Your task to perform on an android device: How much does a 3 bedroom apartment rent for in Los Angeles? Image 0: 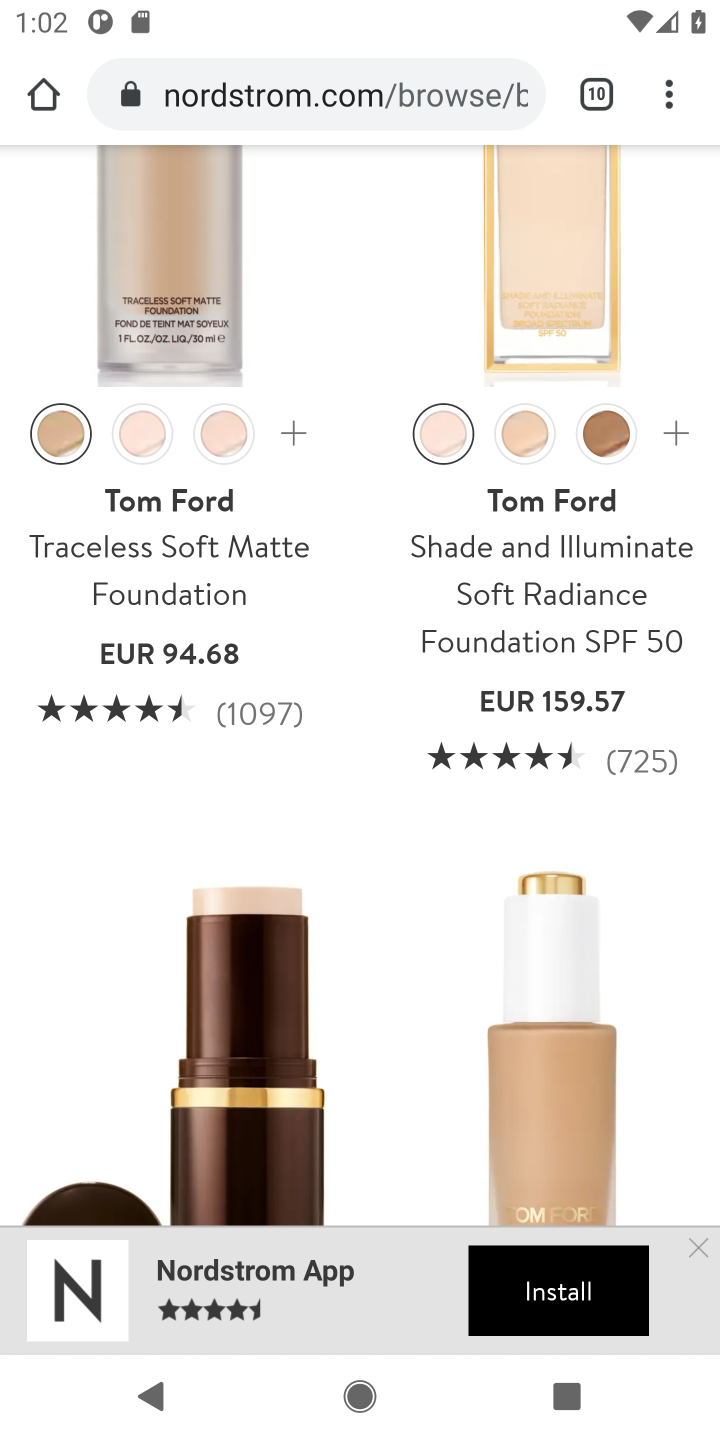
Step 0: press home button
Your task to perform on an android device: How much does a 3 bedroom apartment rent for in Los Angeles? Image 1: 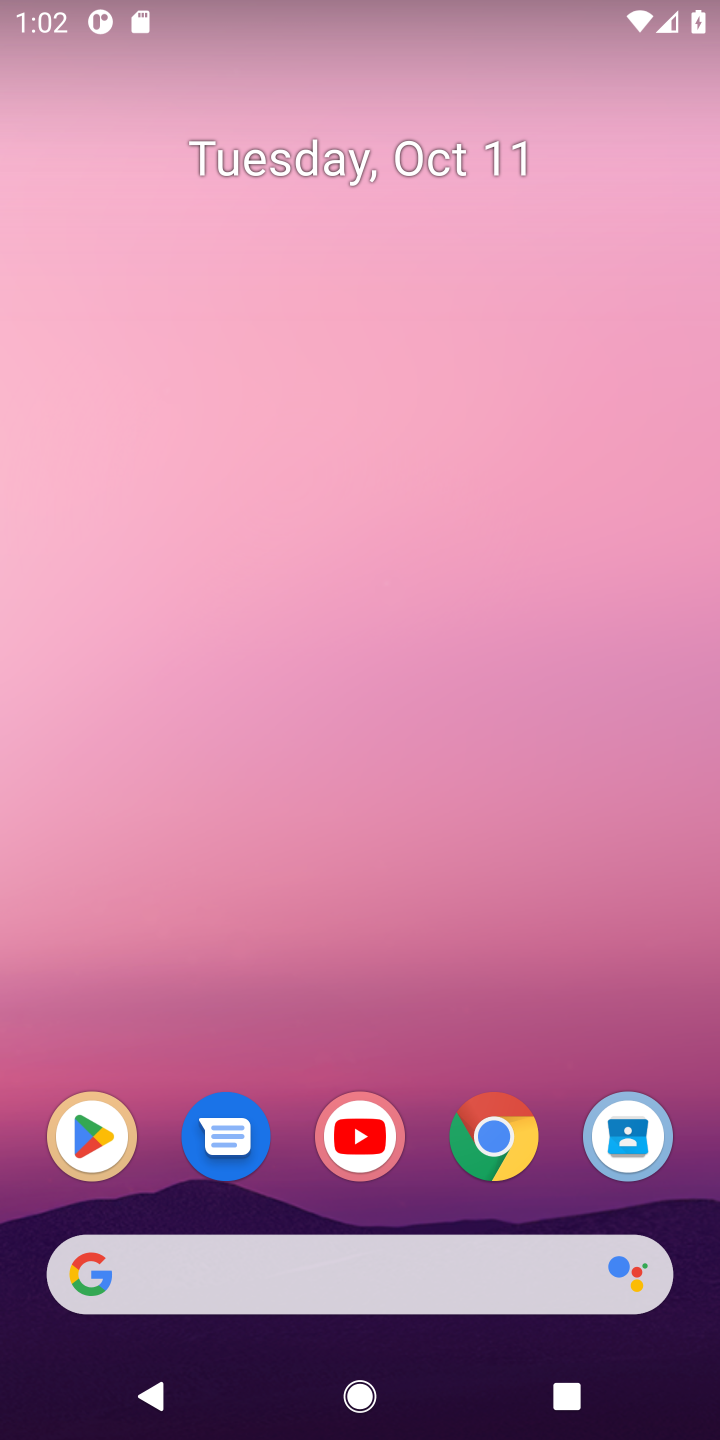
Step 1: click (408, 1288)
Your task to perform on an android device: How much does a 3 bedroom apartment rent for in Los Angeles? Image 2: 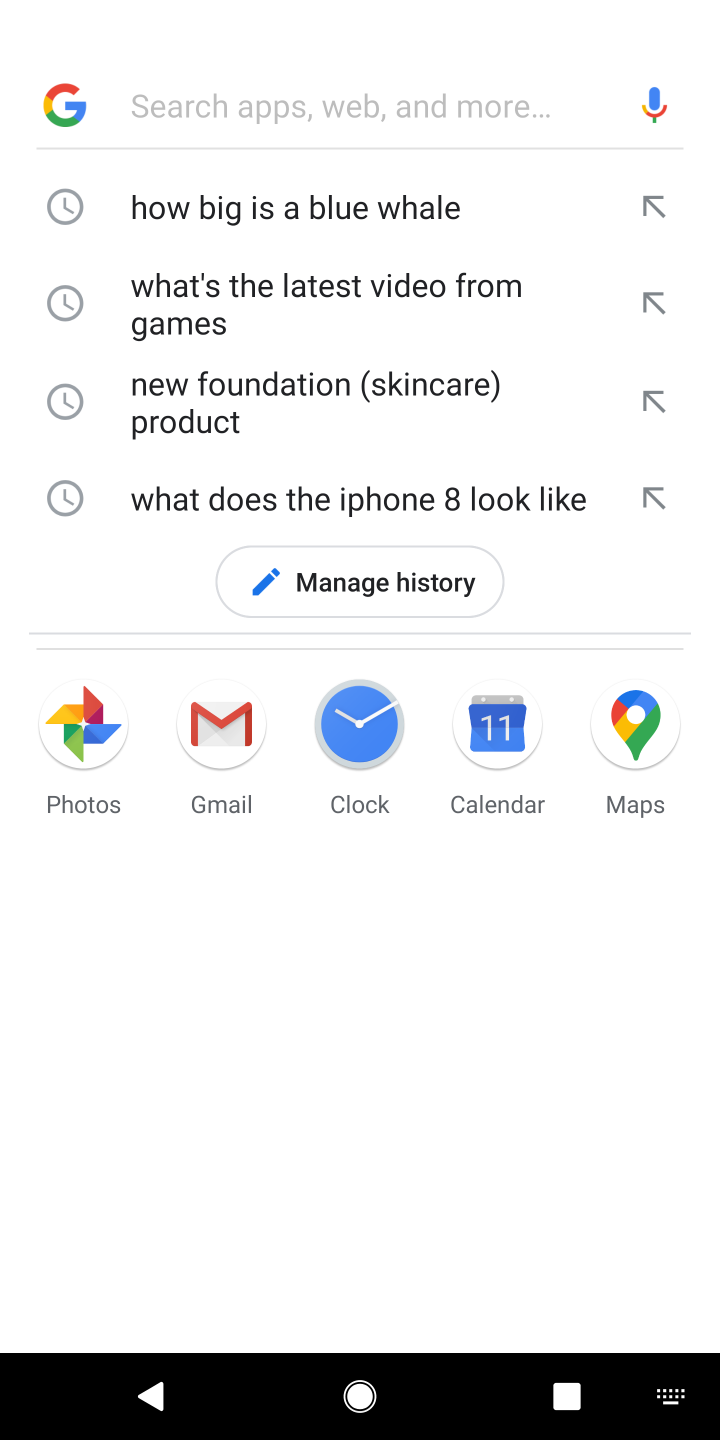
Step 2: type "3 bedroom apartment rent for in Los Angeles"
Your task to perform on an android device: How much does a 3 bedroom apartment rent for in Los Angeles? Image 3: 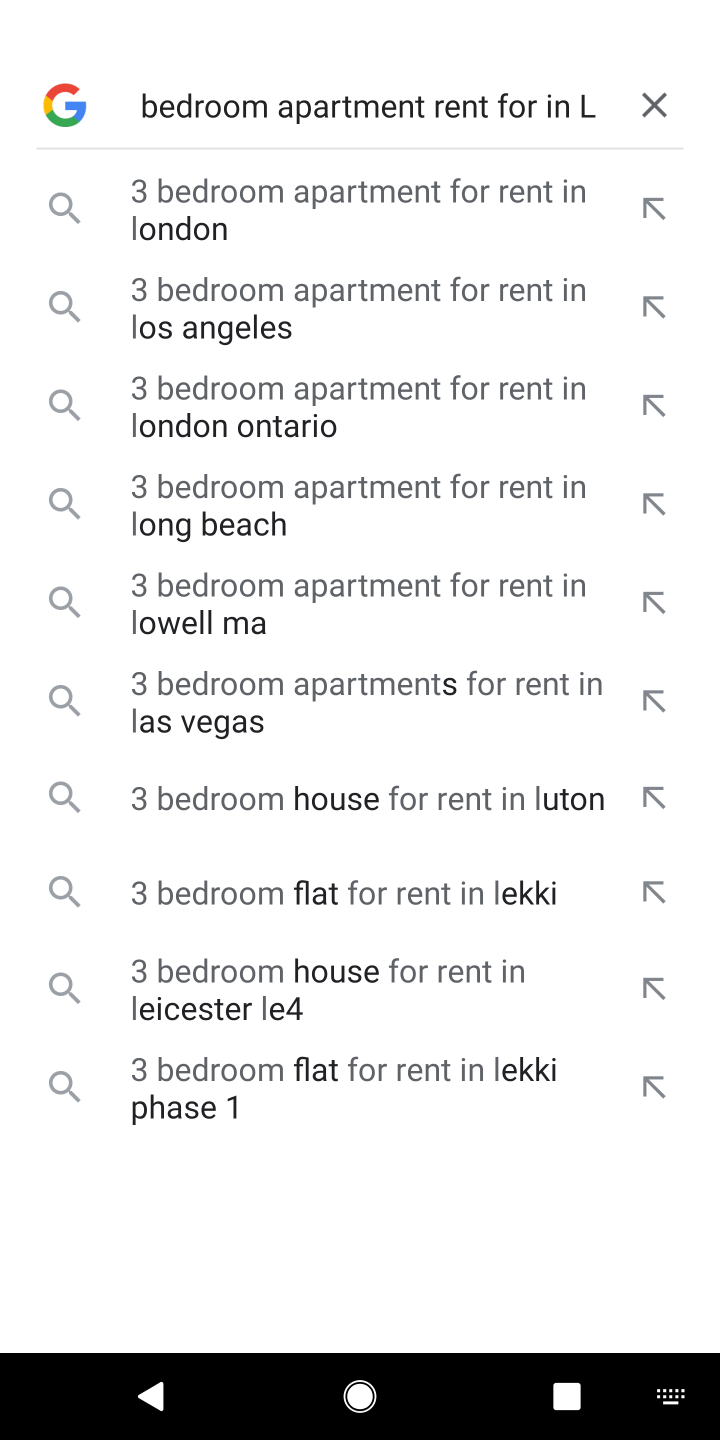
Step 3: press enter
Your task to perform on an android device: How much does a 3 bedroom apartment rent for in Los Angeles? Image 4: 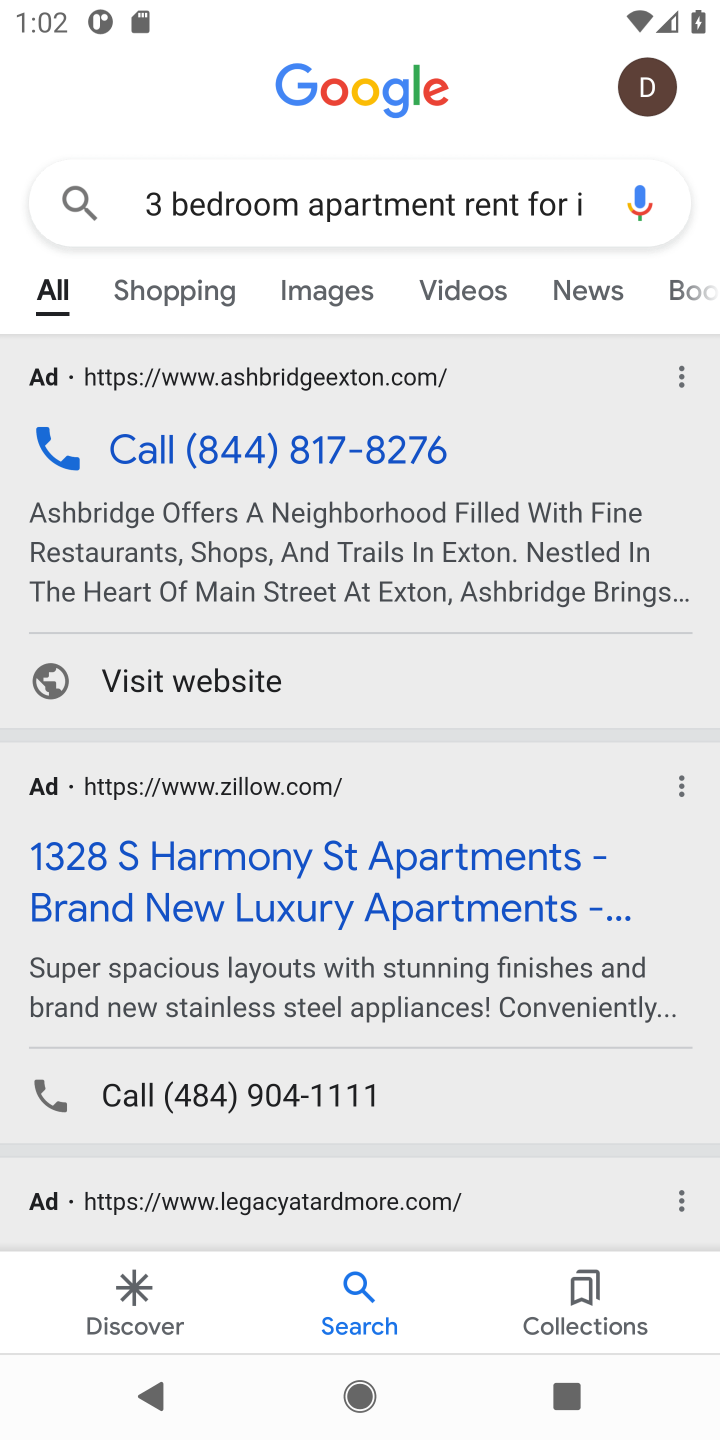
Step 4: drag from (425, 1084) to (399, 860)
Your task to perform on an android device: How much does a 3 bedroom apartment rent for in Los Angeles? Image 5: 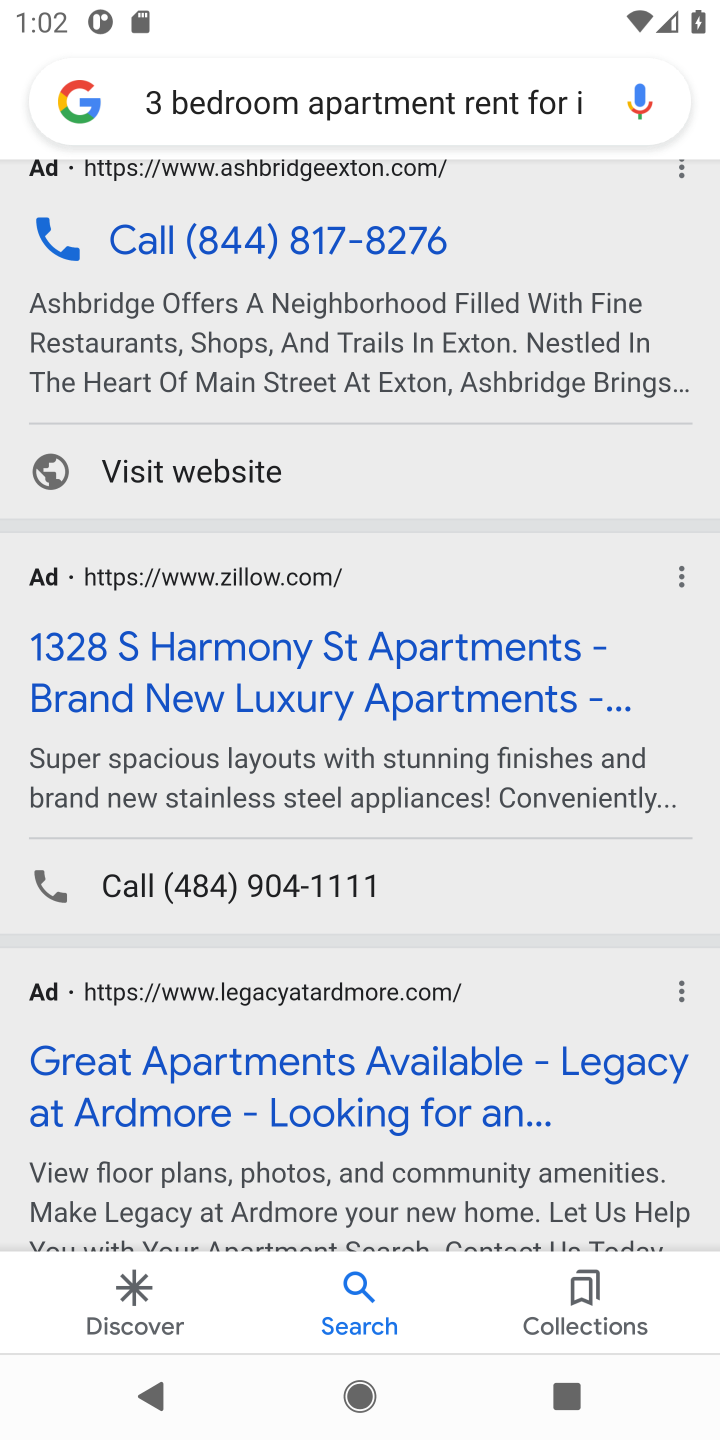
Step 5: drag from (478, 1098) to (458, 849)
Your task to perform on an android device: How much does a 3 bedroom apartment rent for in Los Angeles? Image 6: 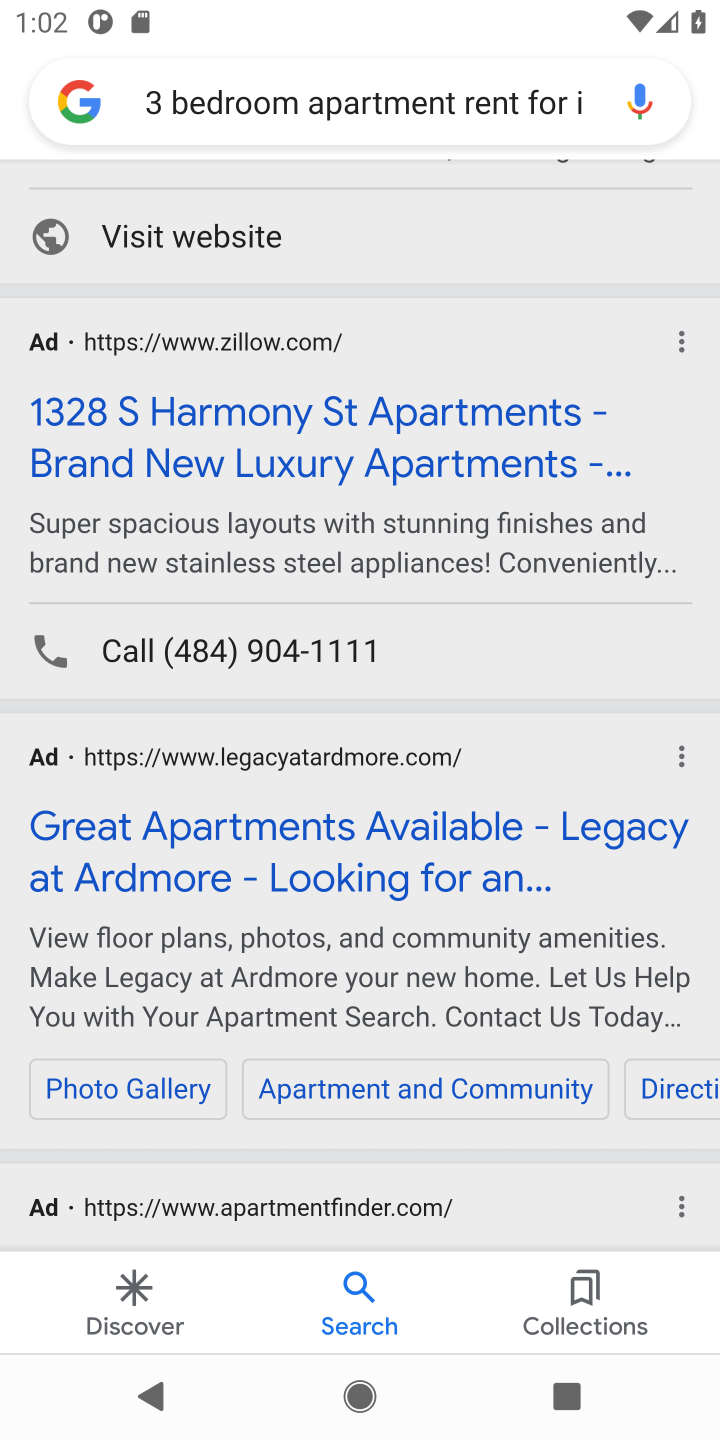
Step 6: drag from (477, 1036) to (483, 802)
Your task to perform on an android device: How much does a 3 bedroom apartment rent for in Los Angeles? Image 7: 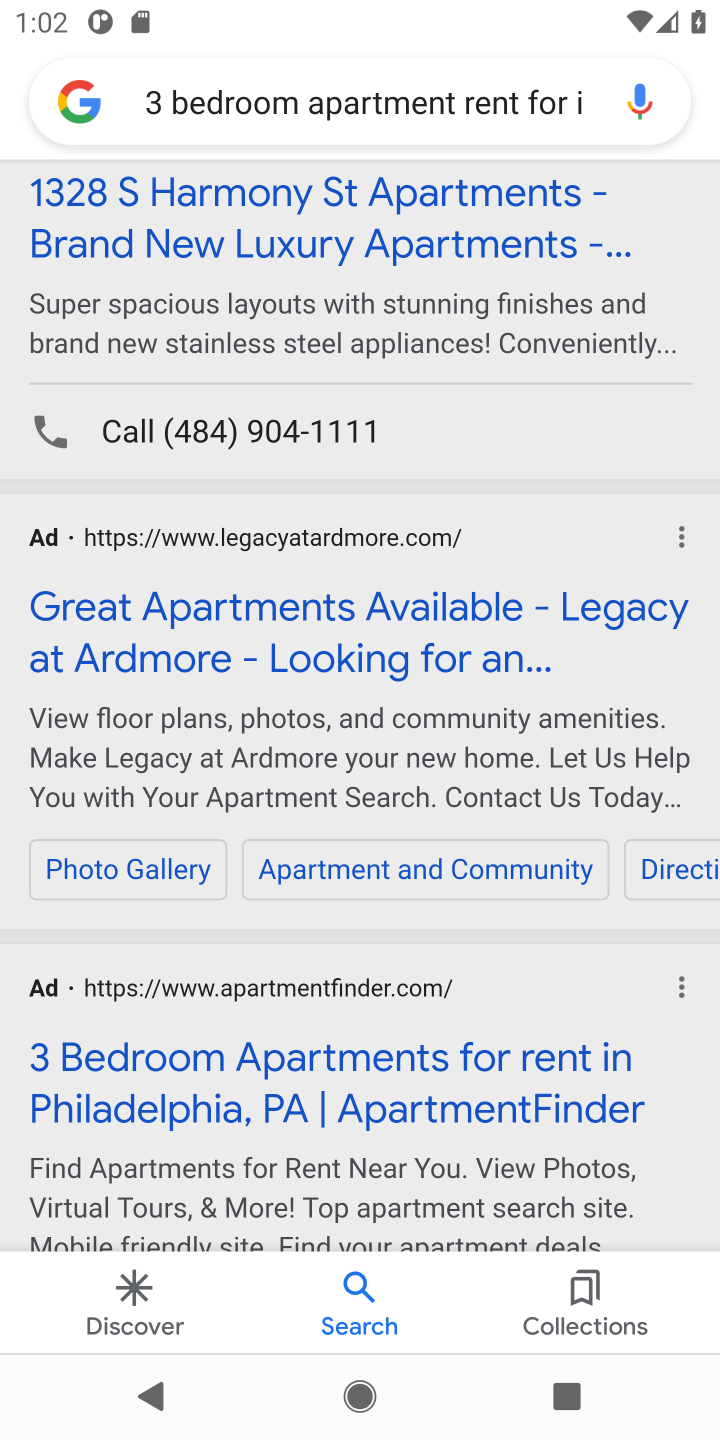
Step 7: drag from (511, 1117) to (515, 829)
Your task to perform on an android device: How much does a 3 bedroom apartment rent for in Los Angeles? Image 8: 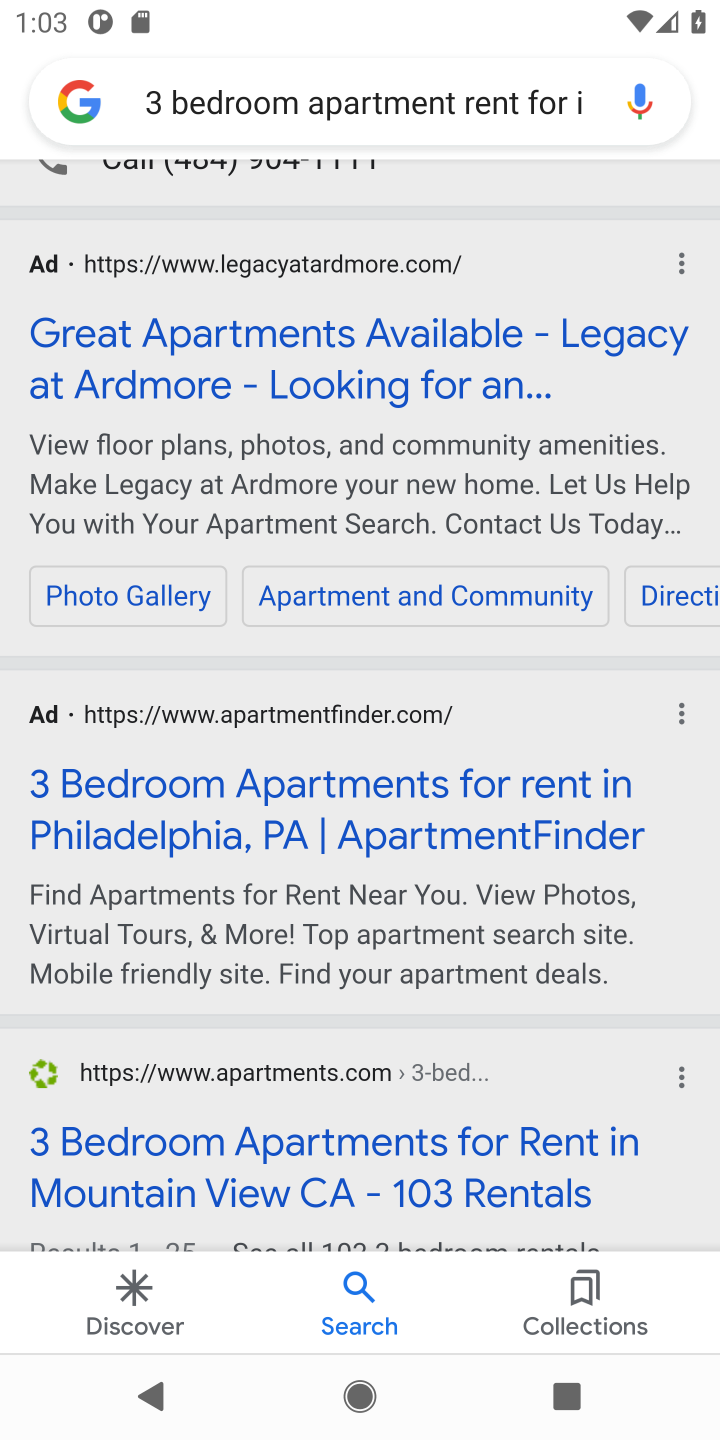
Step 8: drag from (452, 1049) to (425, 667)
Your task to perform on an android device: How much does a 3 bedroom apartment rent for in Los Angeles? Image 9: 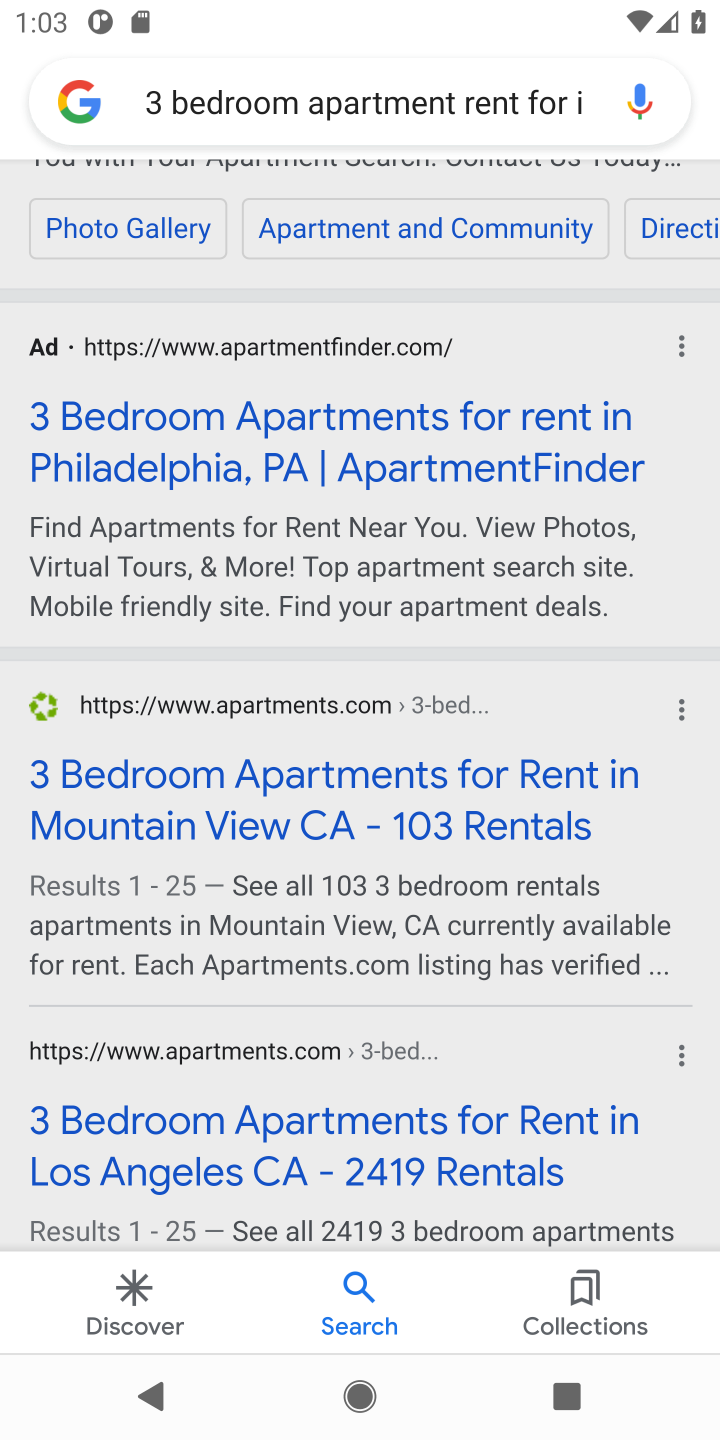
Step 9: drag from (470, 1118) to (458, 850)
Your task to perform on an android device: How much does a 3 bedroom apartment rent for in Los Angeles? Image 10: 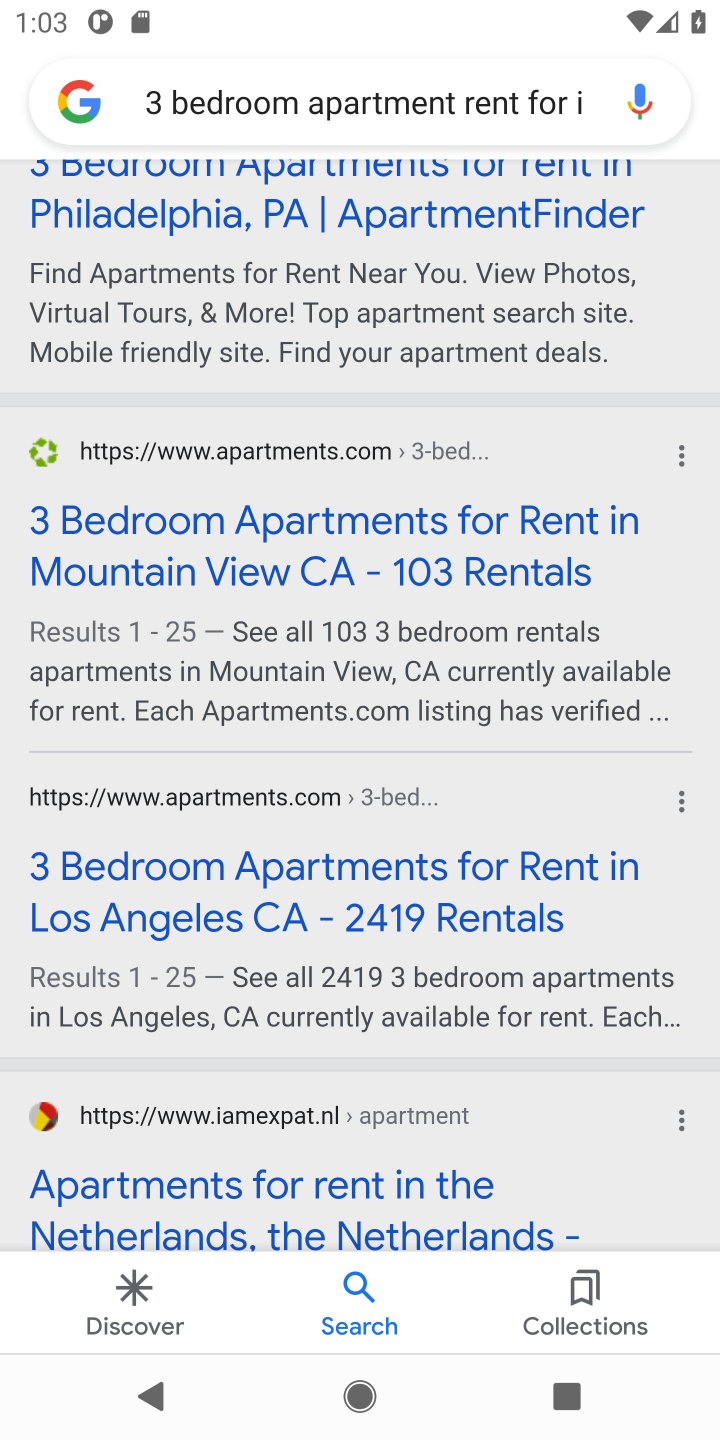
Step 10: click (425, 900)
Your task to perform on an android device: How much does a 3 bedroom apartment rent for in Los Angeles? Image 11: 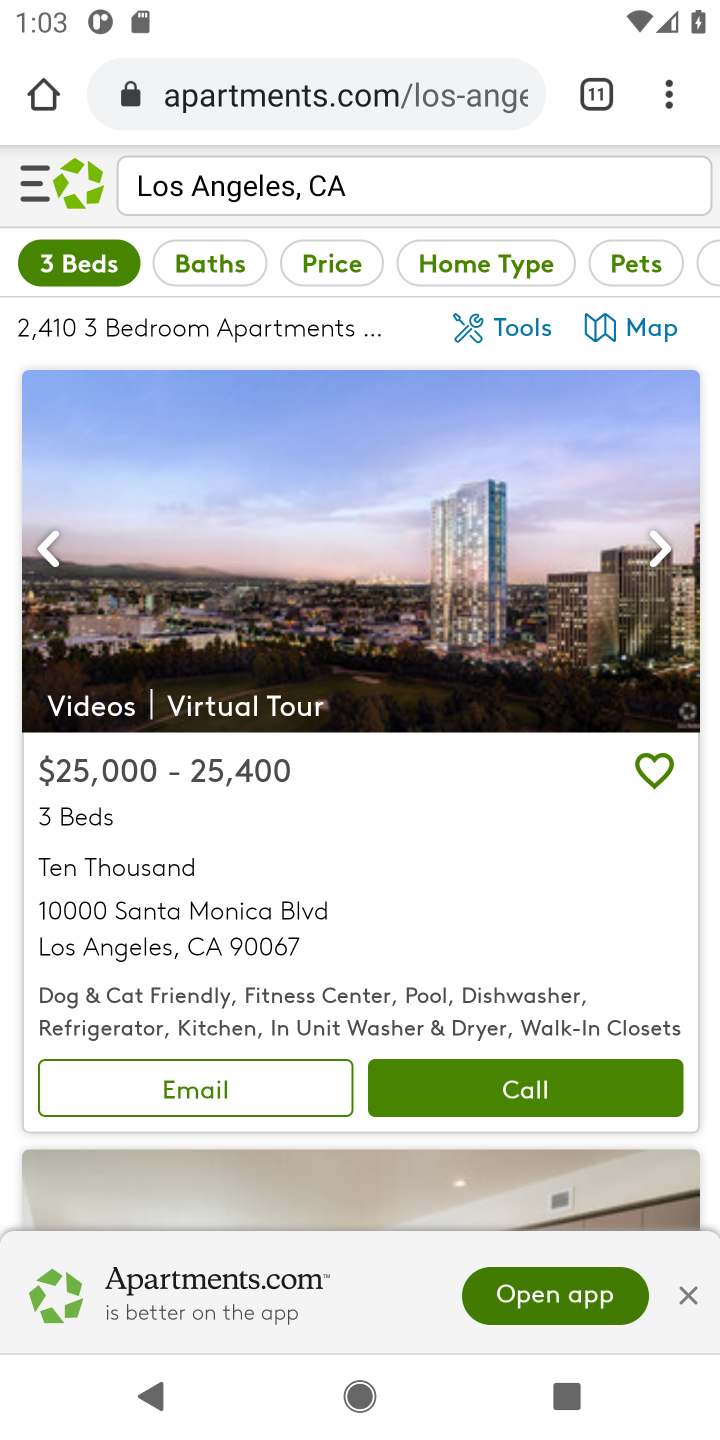
Step 11: task complete